Your task to perform on an android device: turn notification dots off Image 0: 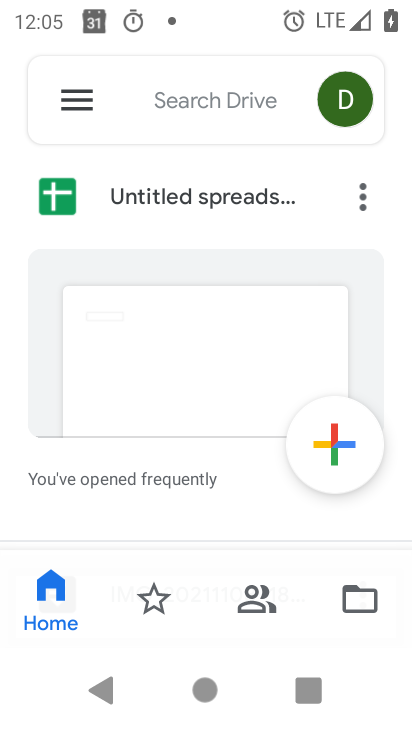
Step 0: press home button
Your task to perform on an android device: turn notification dots off Image 1: 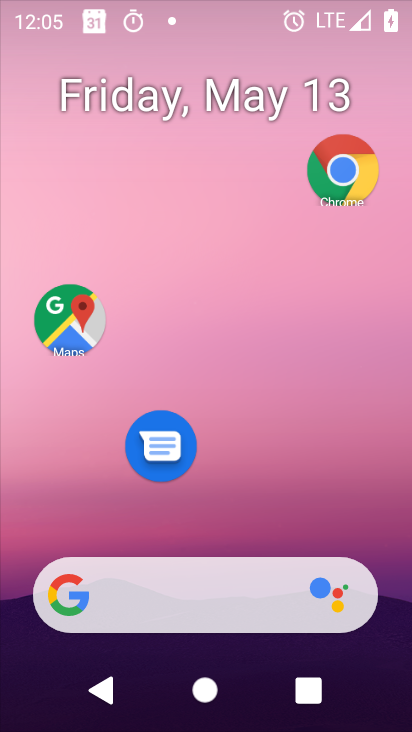
Step 1: drag from (268, 594) to (392, 1)
Your task to perform on an android device: turn notification dots off Image 2: 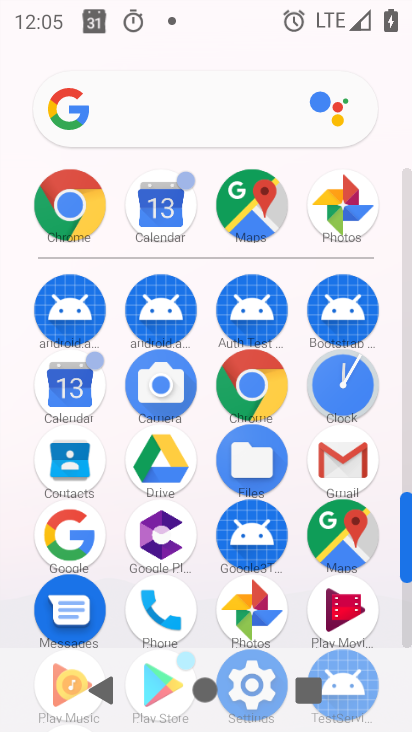
Step 2: drag from (278, 624) to (286, 354)
Your task to perform on an android device: turn notification dots off Image 3: 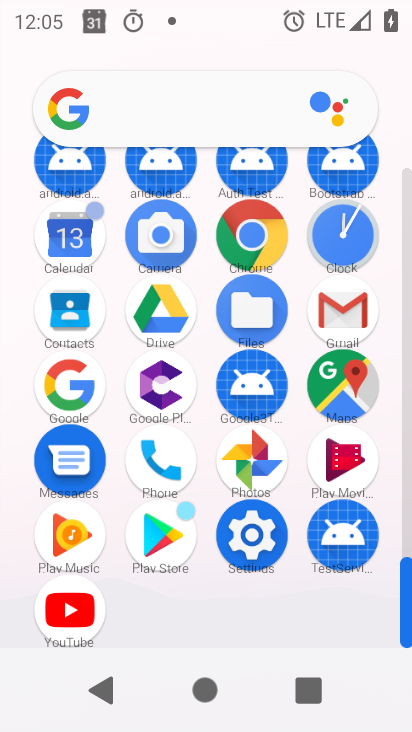
Step 3: click (260, 543)
Your task to perform on an android device: turn notification dots off Image 4: 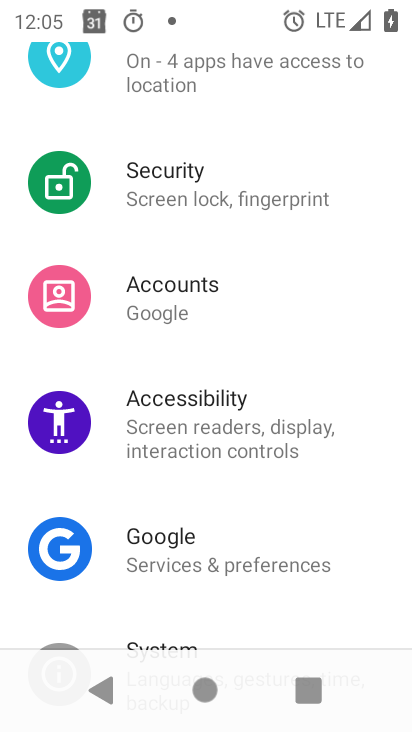
Step 4: drag from (315, 295) to (303, 634)
Your task to perform on an android device: turn notification dots off Image 5: 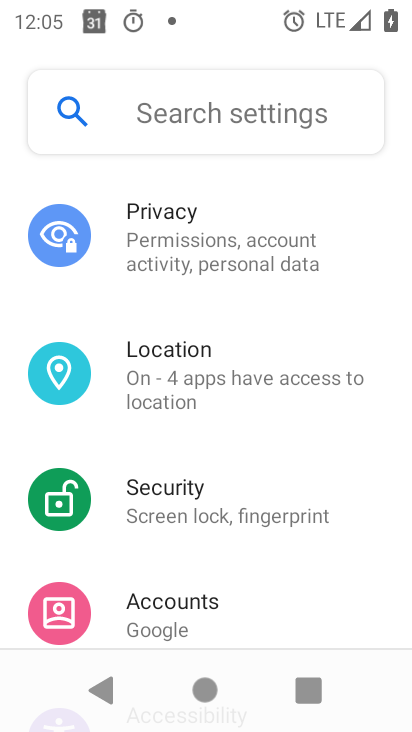
Step 5: drag from (296, 215) to (337, 641)
Your task to perform on an android device: turn notification dots off Image 6: 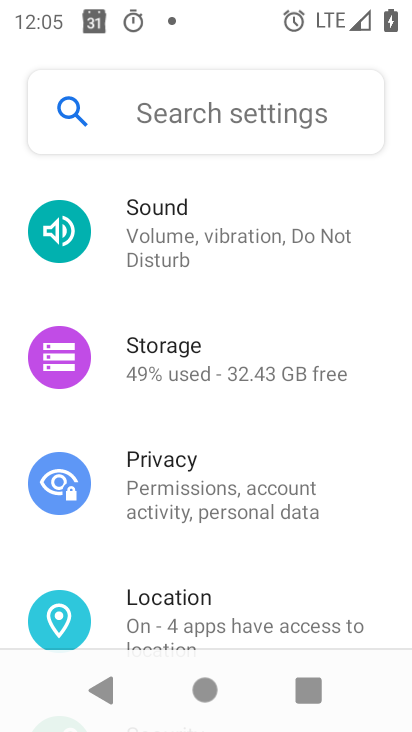
Step 6: drag from (302, 270) to (315, 626)
Your task to perform on an android device: turn notification dots off Image 7: 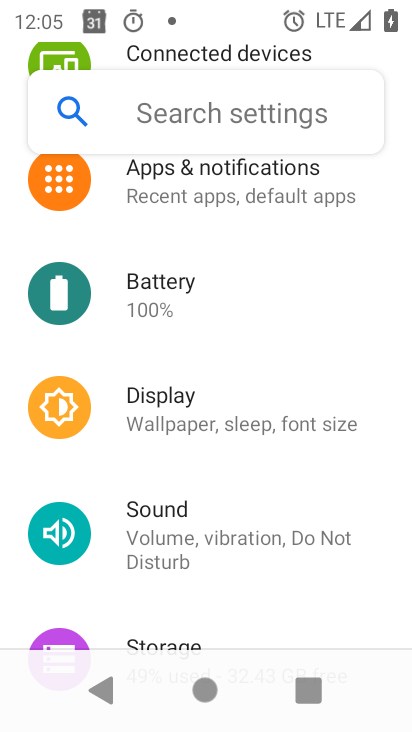
Step 7: click (257, 190)
Your task to perform on an android device: turn notification dots off Image 8: 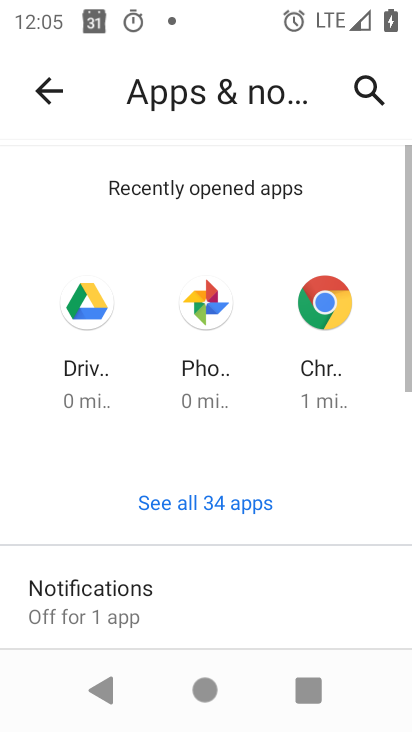
Step 8: drag from (280, 617) to (296, 28)
Your task to perform on an android device: turn notification dots off Image 9: 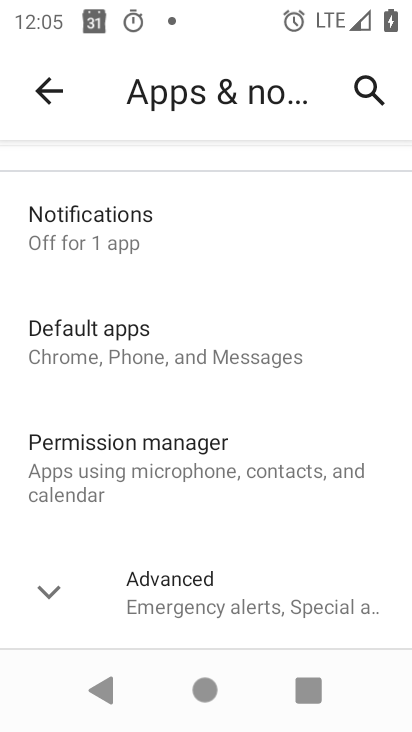
Step 9: click (157, 242)
Your task to perform on an android device: turn notification dots off Image 10: 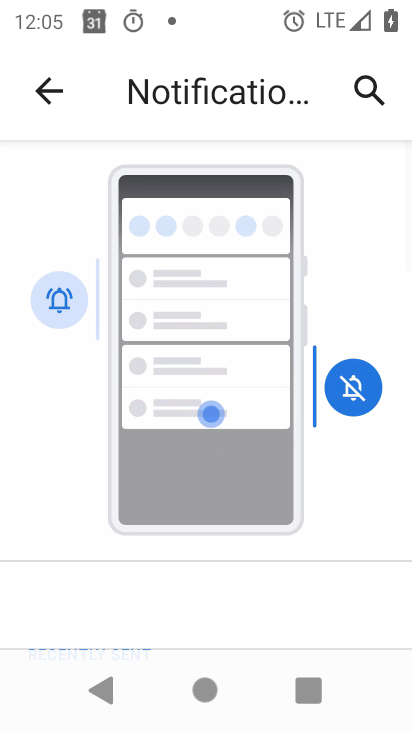
Step 10: drag from (208, 604) to (269, 65)
Your task to perform on an android device: turn notification dots off Image 11: 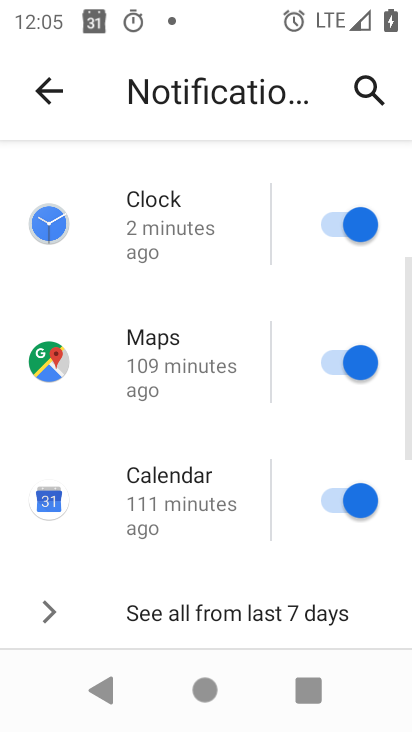
Step 11: drag from (254, 589) to (267, 63)
Your task to perform on an android device: turn notification dots off Image 12: 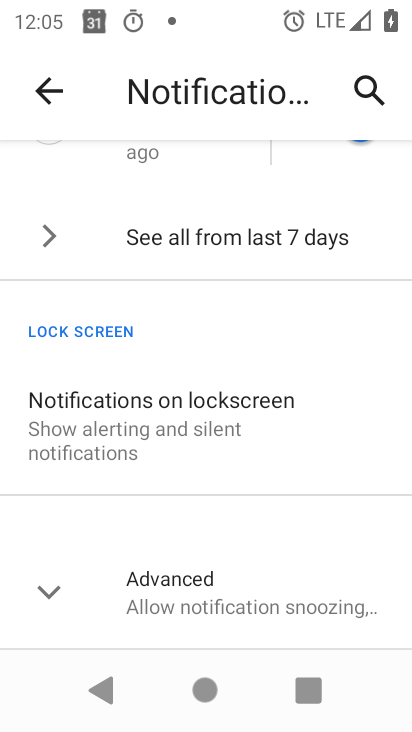
Step 12: click (216, 598)
Your task to perform on an android device: turn notification dots off Image 13: 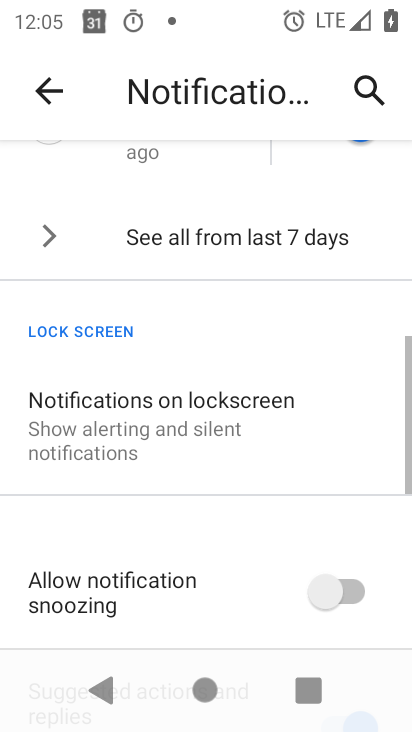
Step 13: drag from (205, 565) to (252, 89)
Your task to perform on an android device: turn notification dots off Image 14: 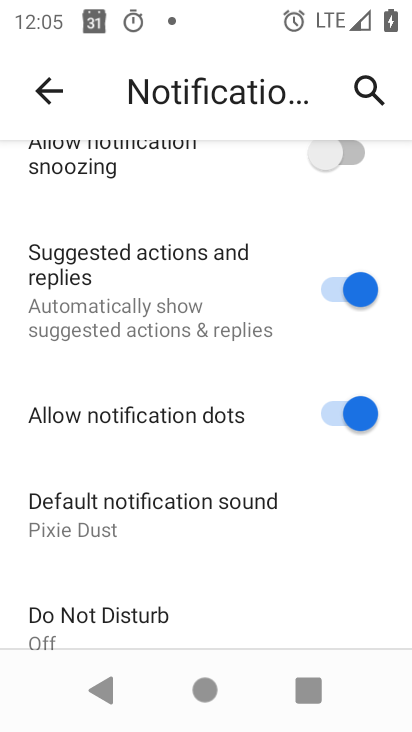
Step 14: click (342, 412)
Your task to perform on an android device: turn notification dots off Image 15: 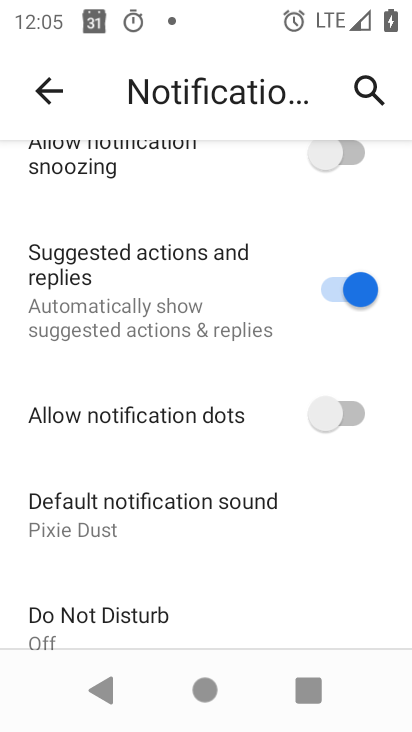
Step 15: task complete